Your task to perform on an android device: Go to Yahoo.com Image 0: 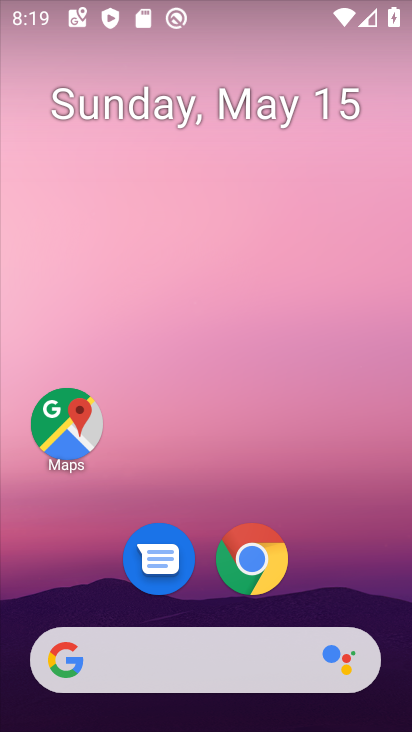
Step 0: click (270, 572)
Your task to perform on an android device: Go to Yahoo.com Image 1: 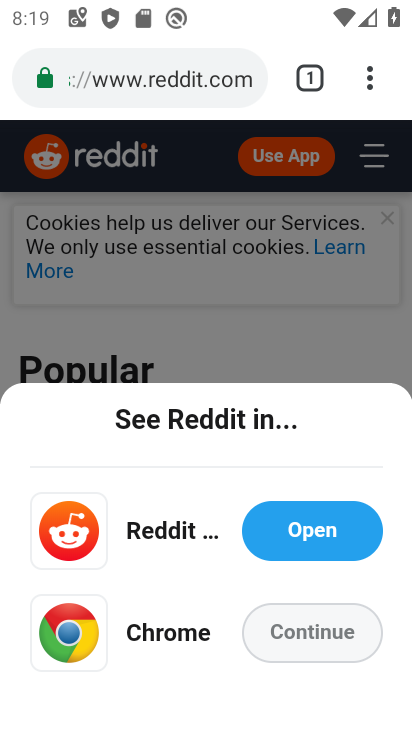
Step 1: task complete